Your task to perform on an android device: install app "NewsBreak: Local News & Alerts" Image 0: 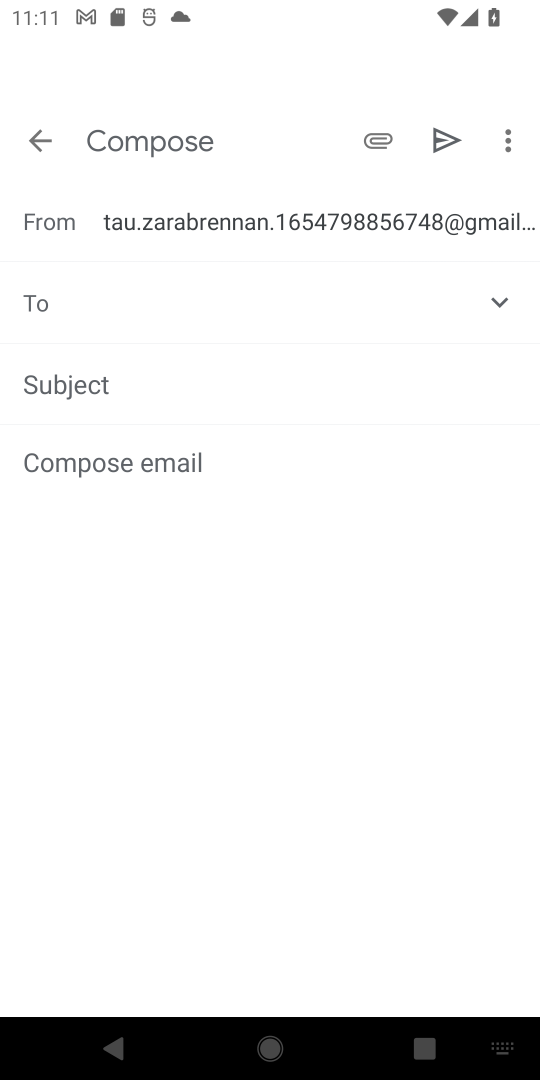
Step 0: press home button
Your task to perform on an android device: install app "NewsBreak: Local News & Alerts" Image 1: 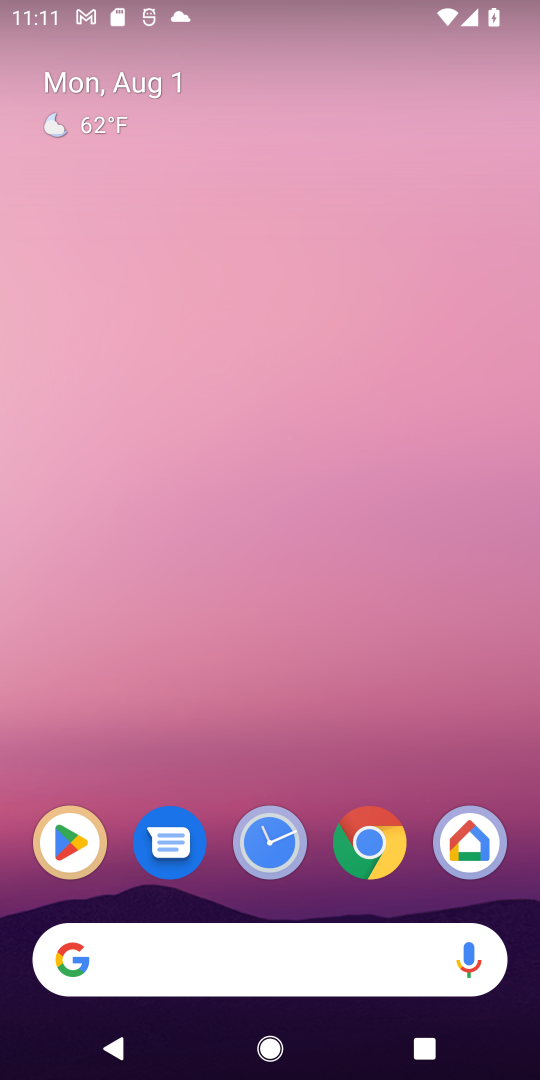
Step 1: click (72, 846)
Your task to perform on an android device: install app "NewsBreak: Local News & Alerts" Image 2: 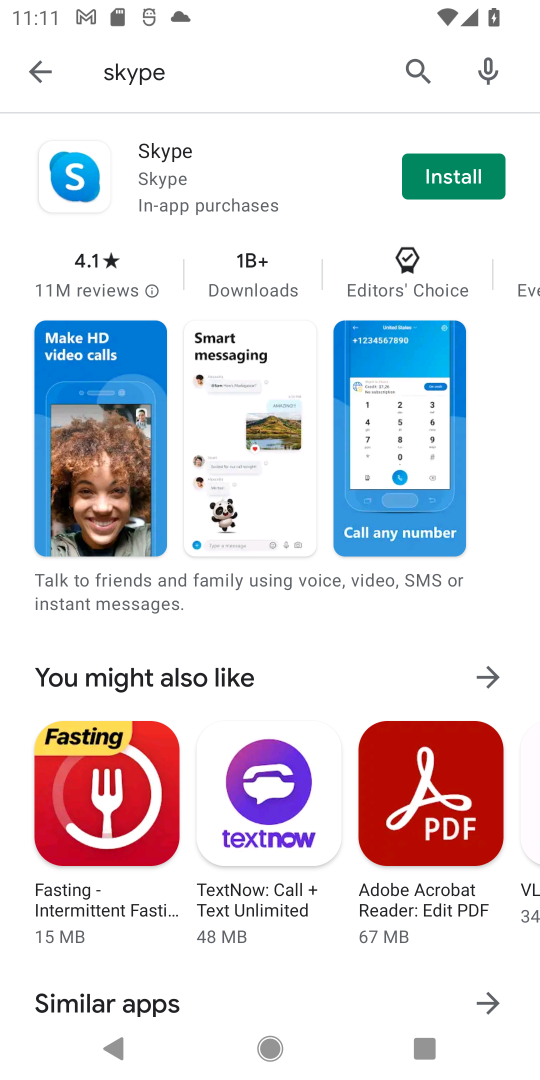
Step 2: drag from (416, 31) to (397, 76)
Your task to perform on an android device: install app "NewsBreak: Local News & Alerts" Image 3: 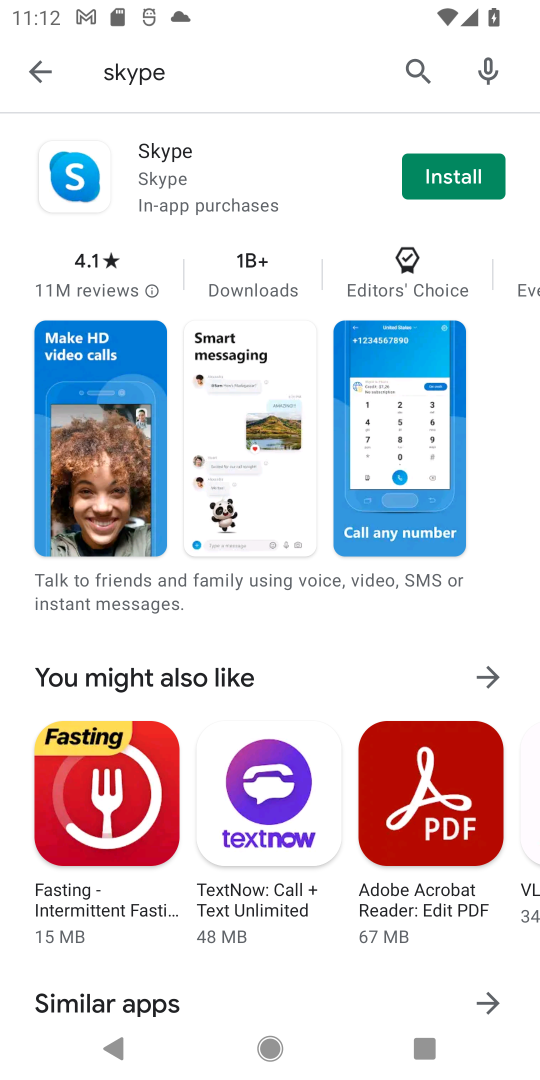
Step 3: click (428, 79)
Your task to perform on an android device: install app "NewsBreak: Local News & Alerts" Image 4: 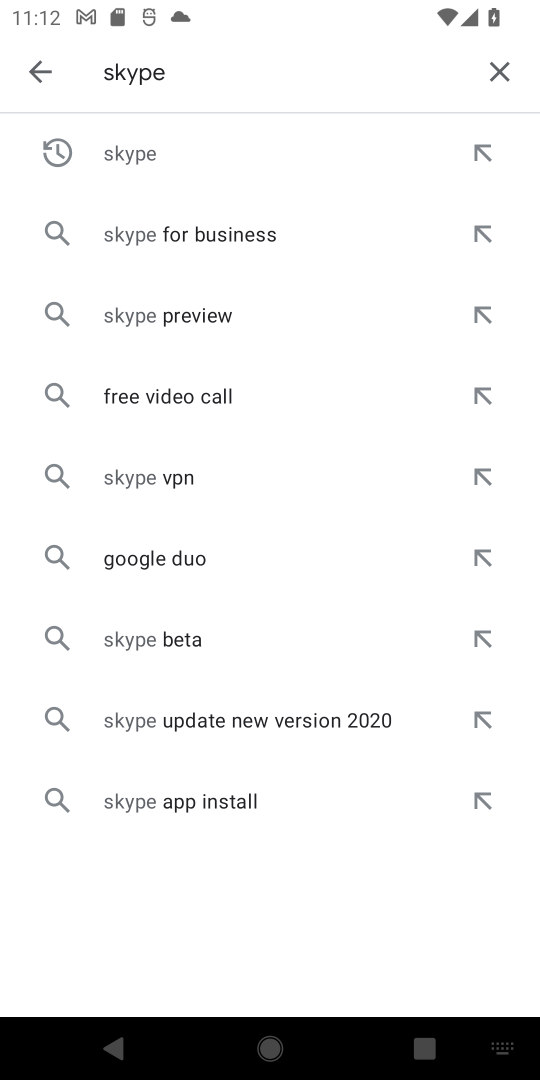
Step 4: click (498, 63)
Your task to perform on an android device: install app "NewsBreak: Local News & Alerts" Image 5: 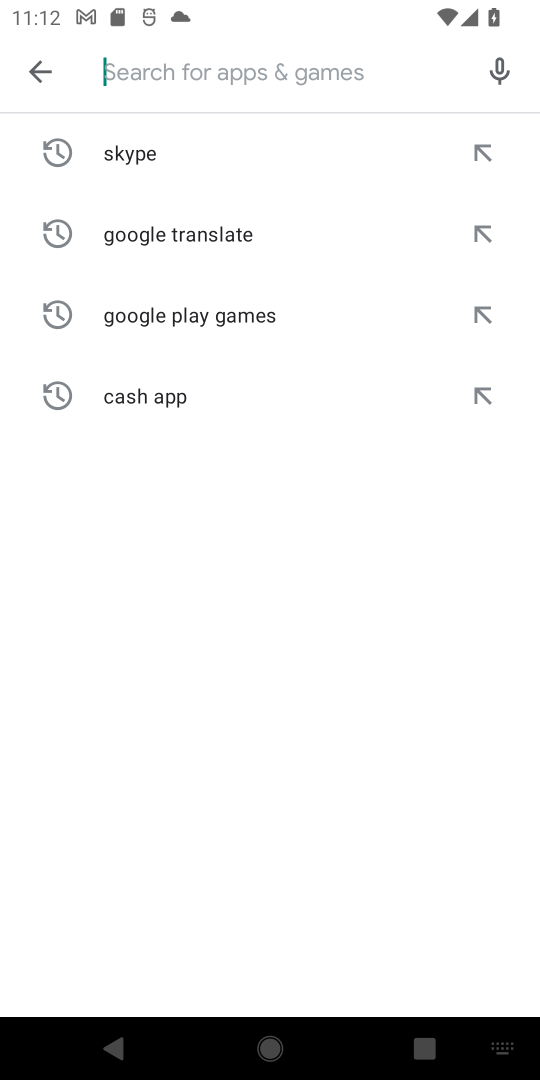
Step 5: click (178, 78)
Your task to perform on an android device: install app "NewsBreak: Local News & Alerts" Image 6: 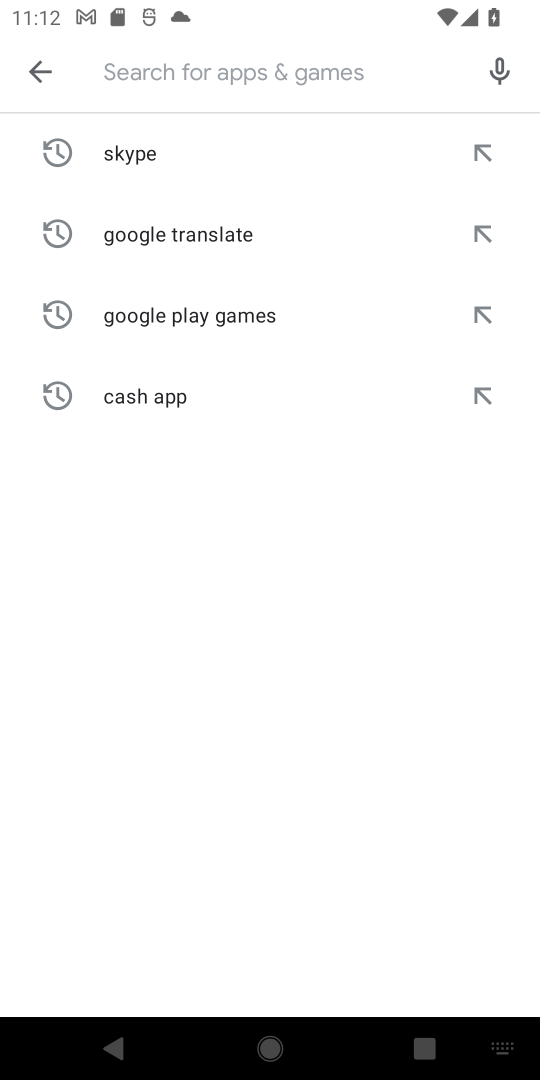
Step 6: type "NewsBreak: Local News & Alert"
Your task to perform on an android device: install app "NewsBreak: Local News & Alerts" Image 7: 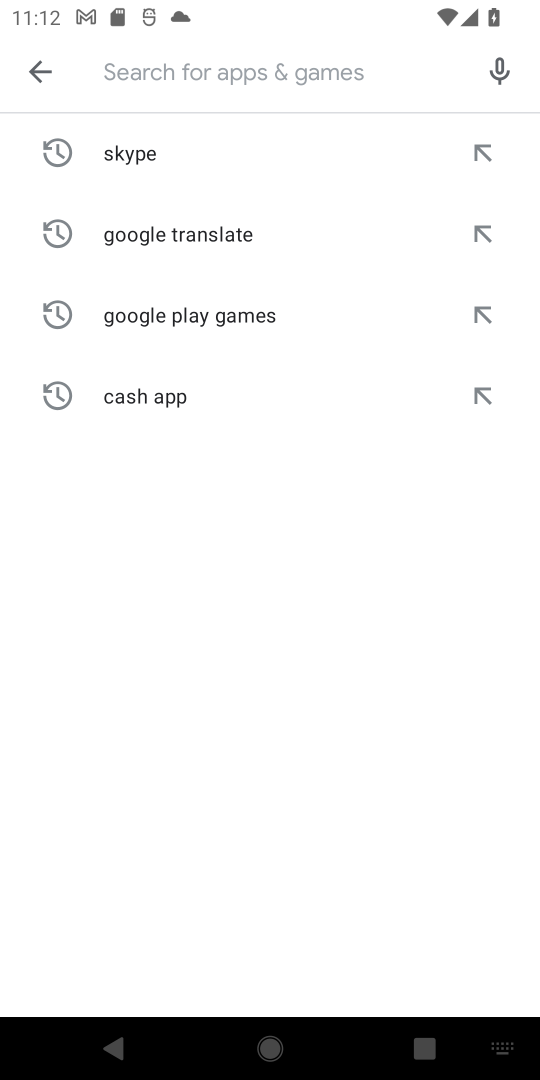
Step 7: click (254, 588)
Your task to perform on an android device: install app "NewsBreak: Local News & Alerts" Image 8: 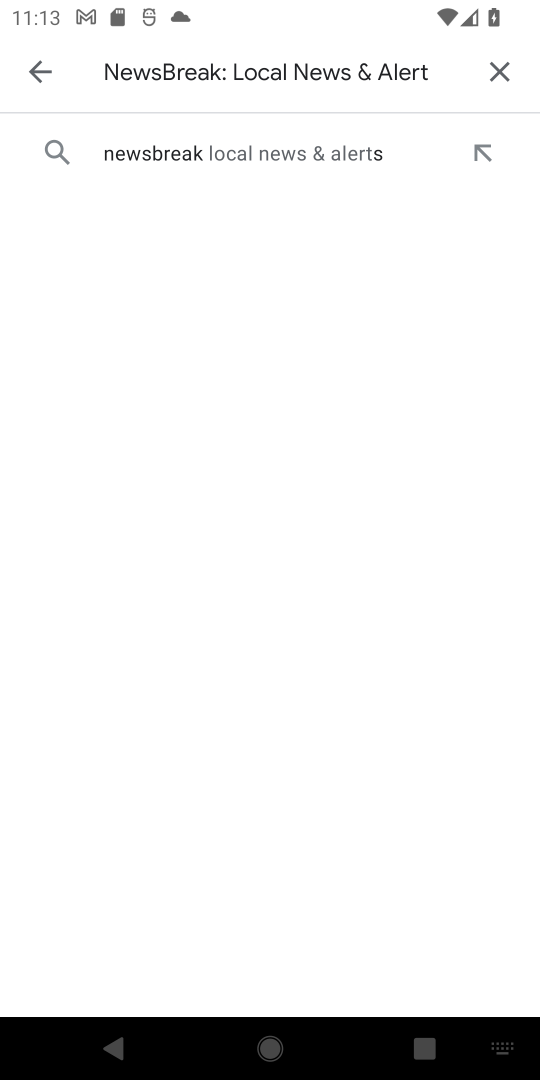
Step 8: click (207, 148)
Your task to perform on an android device: install app "NewsBreak: Local News & Alerts" Image 9: 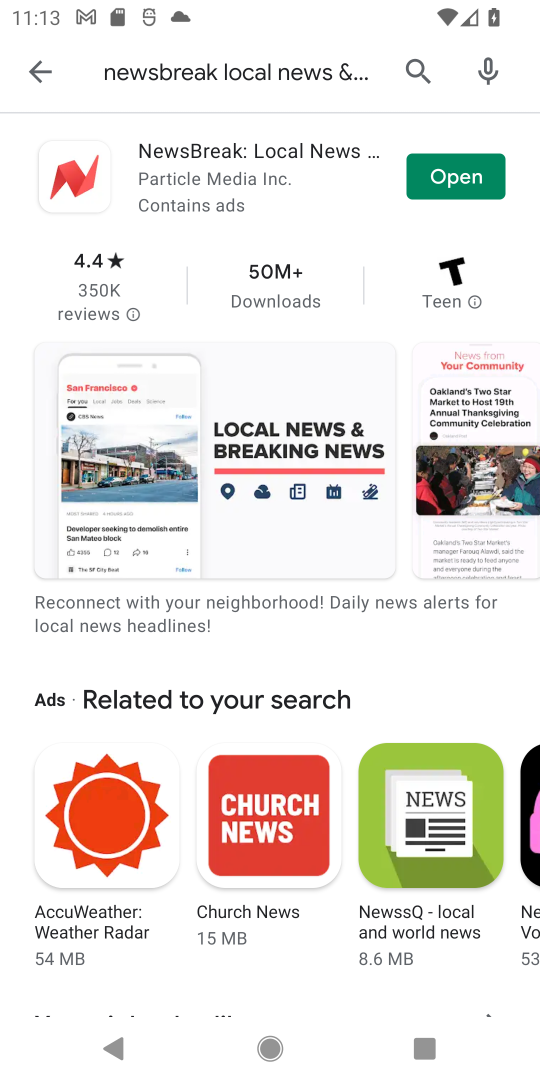
Step 9: click (464, 178)
Your task to perform on an android device: install app "NewsBreak: Local News & Alerts" Image 10: 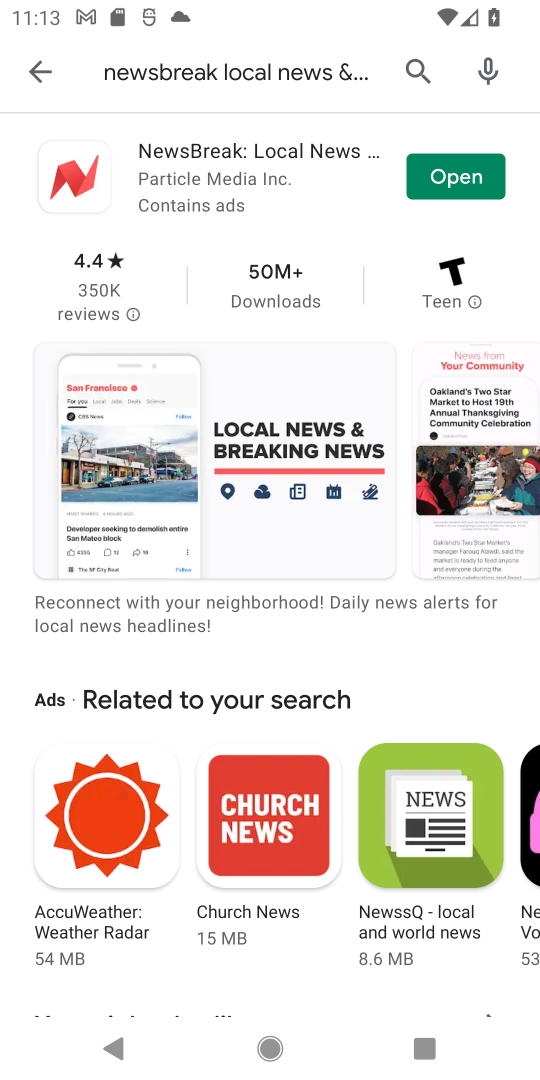
Step 10: task complete